Your task to perform on an android device: turn on bluetooth scan Image 0: 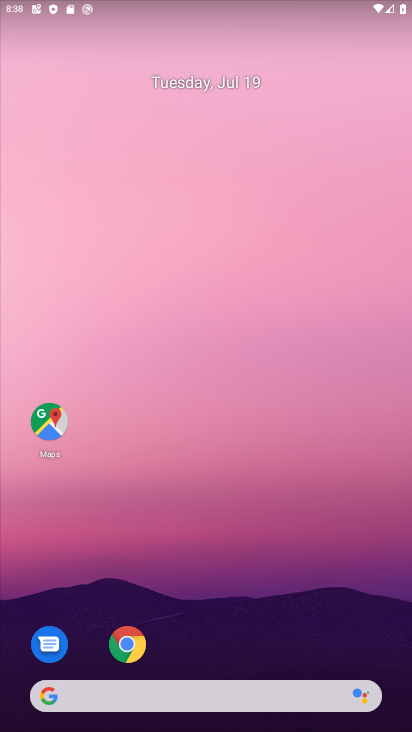
Step 0: drag from (200, 645) to (185, 57)
Your task to perform on an android device: turn on bluetooth scan Image 1: 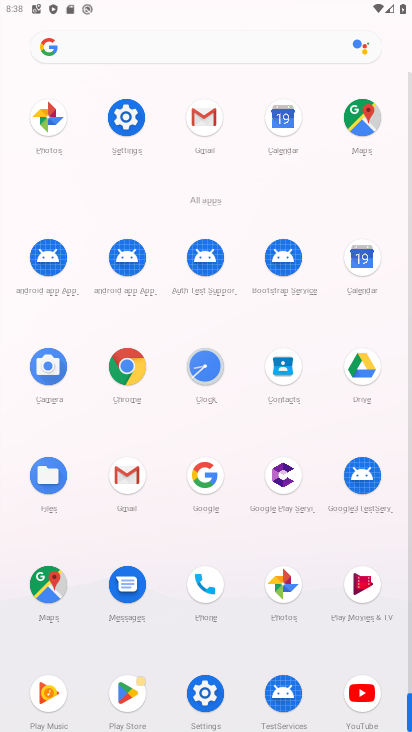
Step 1: click (121, 111)
Your task to perform on an android device: turn on bluetooth scan Image 2: 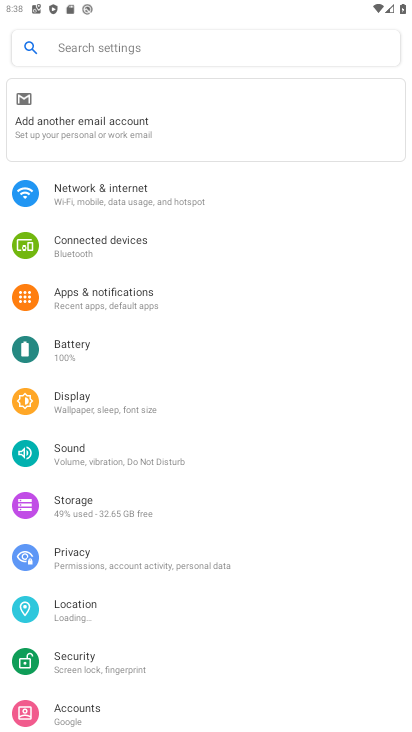
Step 2: drag from (254, 666) to (309, 243)
Your task to perform on an android device: turn on bluetooth scan Image 3: 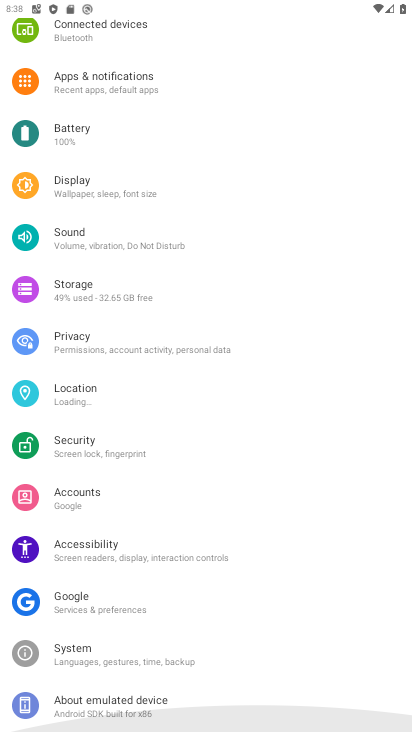
Step 3: drag from (296, 238) to (319, 724)
Your task to perform on an android device: turn on bluetooth scan Image 4: 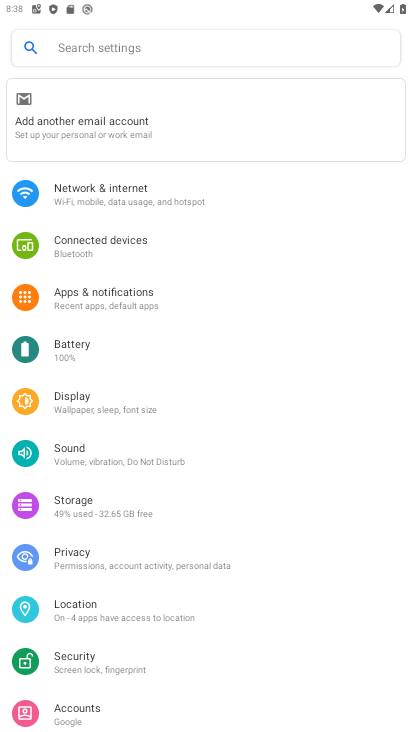
Step 4: click (115, 613)
Your task to perform on an android device: turn on bluetooth scan Image 5: 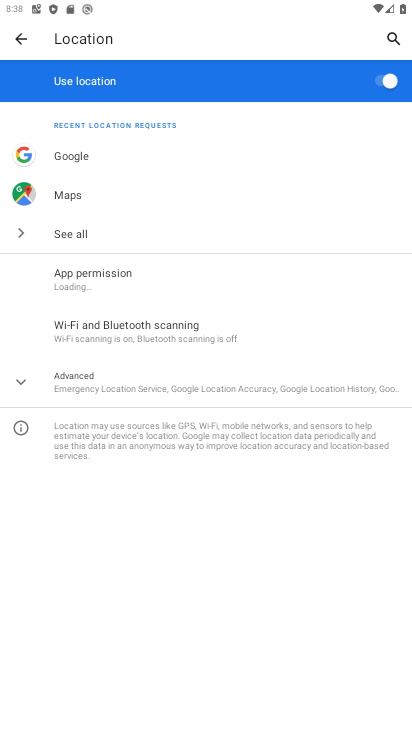
Step 5: click (98, 398)
Your task to perform on an android device: turn on bluetooth scan Image 6: 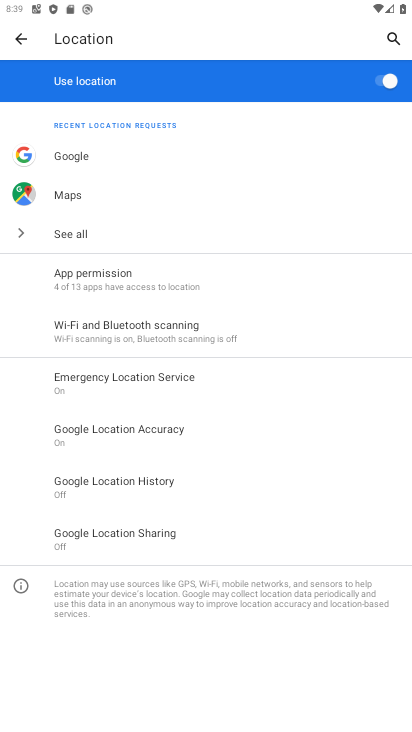
Step 6: click (180, 316)
Your task to perform on an android device: turn on bluetooth scan Image 7: 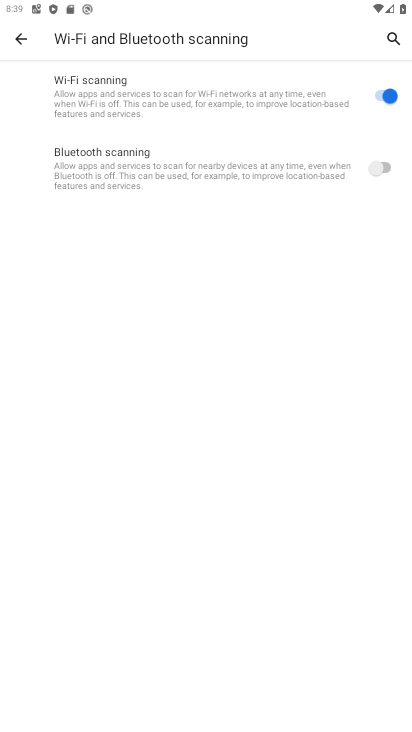
Step 7: click (382, 180)
Your task to perform on an android device: turn on bluetooth scan Image 8: 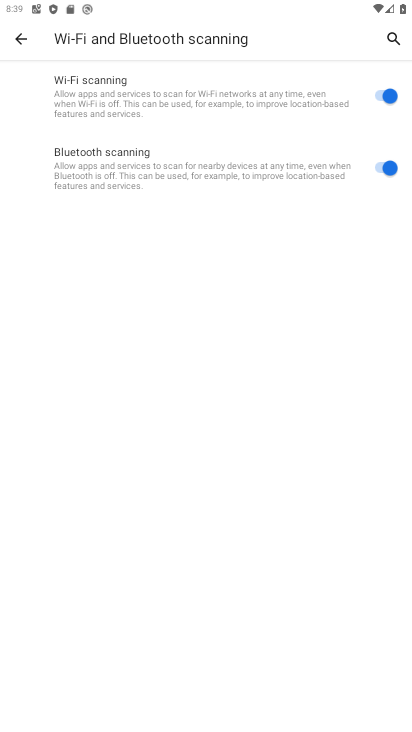
Step 8: task complete